Your task to perform on an android device: Open the Play Movies app and select the watchlist tab. Image 0: 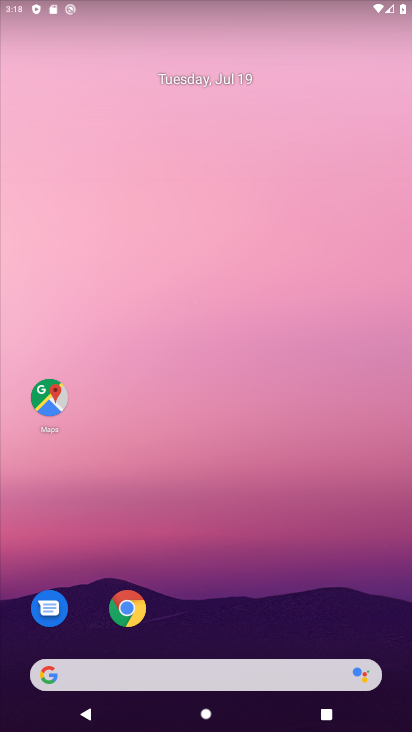
Step 0: drag from (98, 507) to (365, 65)
Your task to perform on an android device: Open the Play Movies app and select the watchlist tab. Image 1: 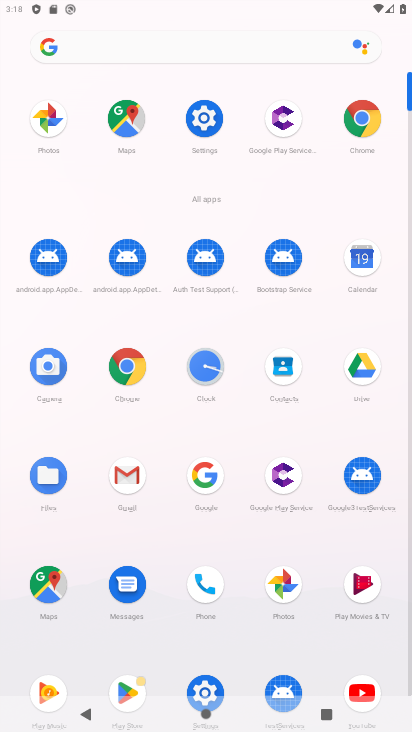
Step 1: click (355, 586)
Your task to perform on an android device: Open the Play Movies app and select the watchlist tab. Image 2: 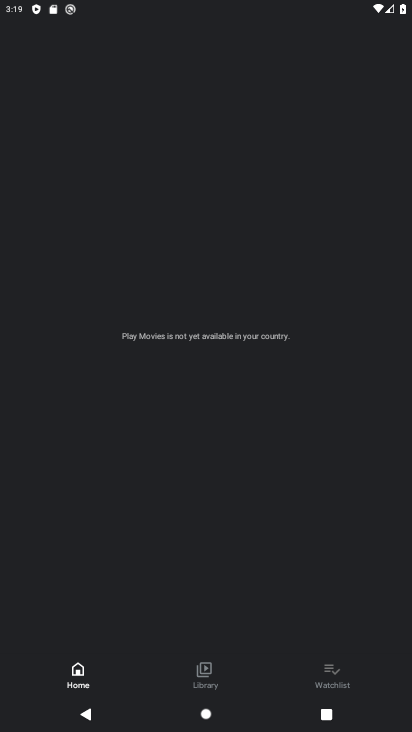
Step 2: click (332, 679)
Your task to perform on an android device: Open the Play Movies app and select the watchlist tab. Image 3: 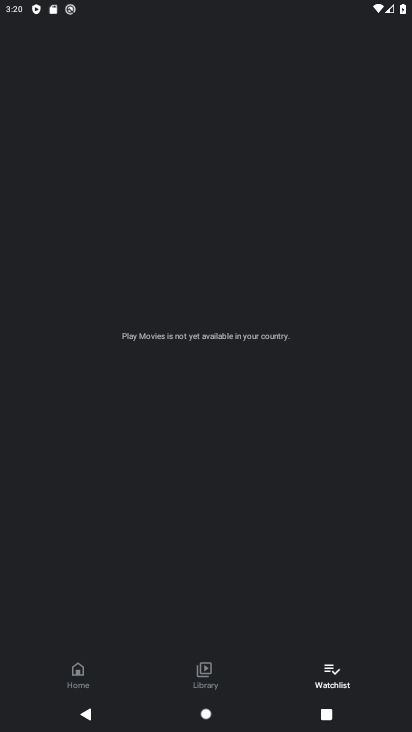
Step 3: task complete